Your task to perform on an android device: What's on my calendar tomorrow? Image 0: 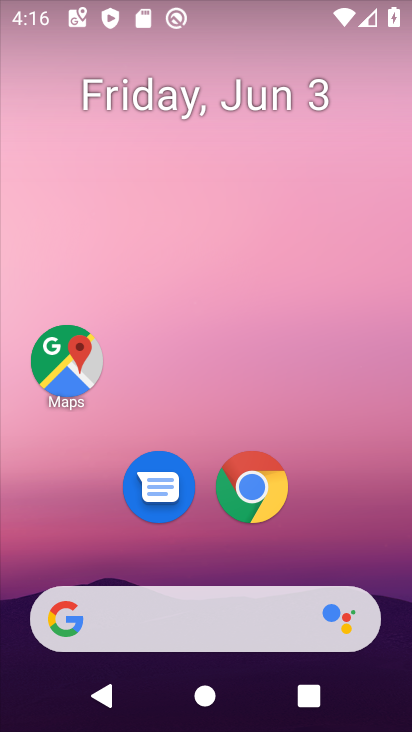
Step 0: click (266, 257)
Your task to perform on an android device: What's on my calendar tomorrow? Image 1: 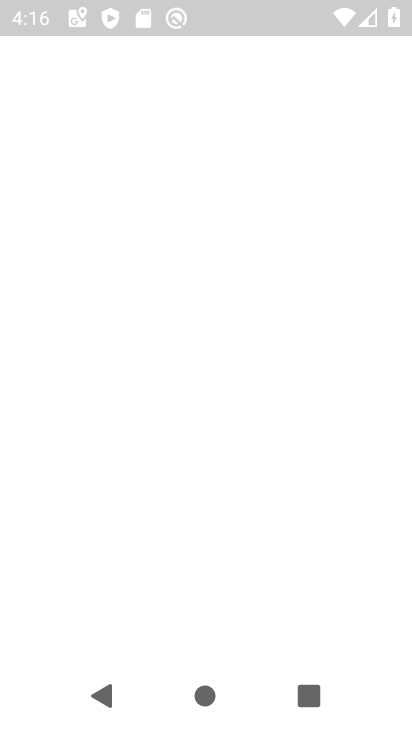
Step 1: drag from (210, 542) to (246, 394)
Your task to perform on an android device: What's on my calendar tomorrow? Image 2: 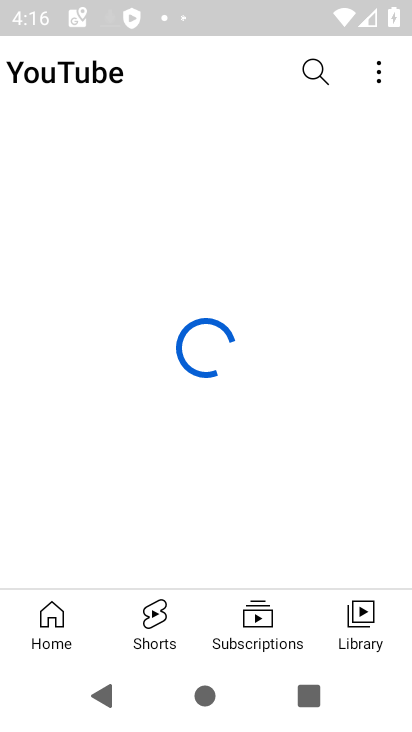
Step 2: press home button
Your task to perform on an android device: What's on my calendar tomorrow? Image 3: 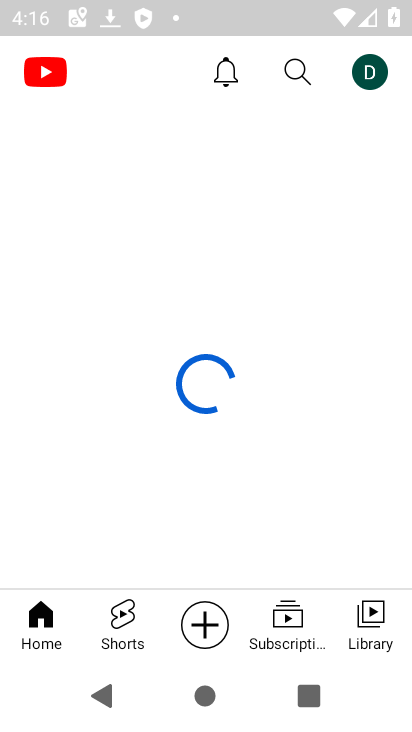
Step 3: press home button
Your task to perform on an android device: What's on my calendar tomorrow? Image 4: 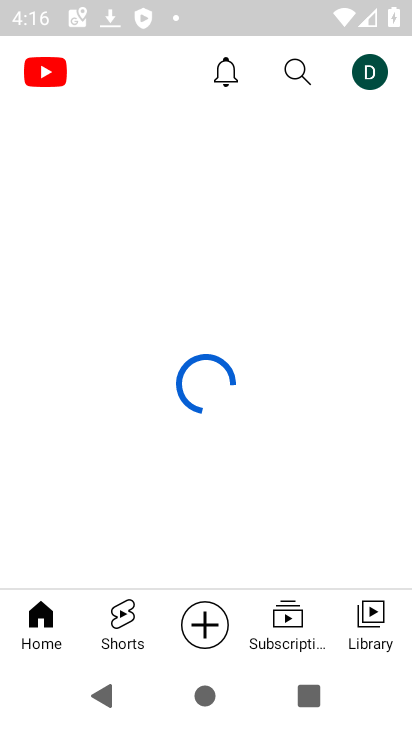
Step 4: click (222, 169)
Your task to perform on an android device: What's on my calendar tomorrow? Image 5: 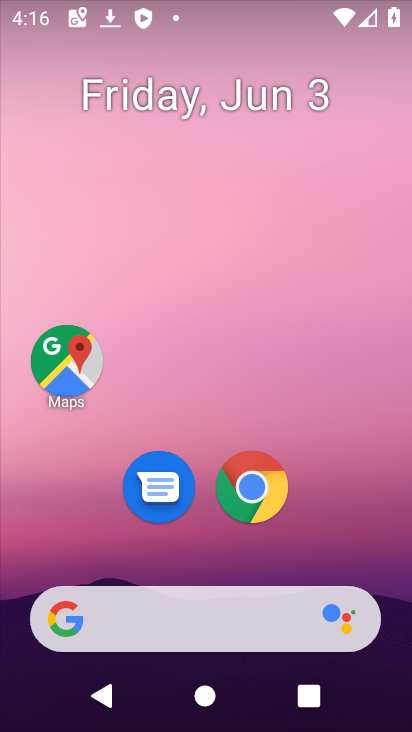
Step 5: drag from (165, 560) to (220, 43)
Your task to perform on an android device: What's on my calendar tomorrow? Image 6: 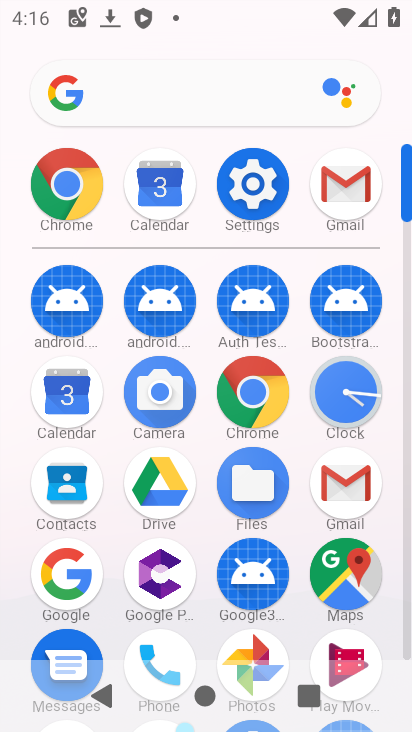
Step 6: click (71, 397)
Your task to perform on an android device: What's on my calendar tomorrow? Image 7: 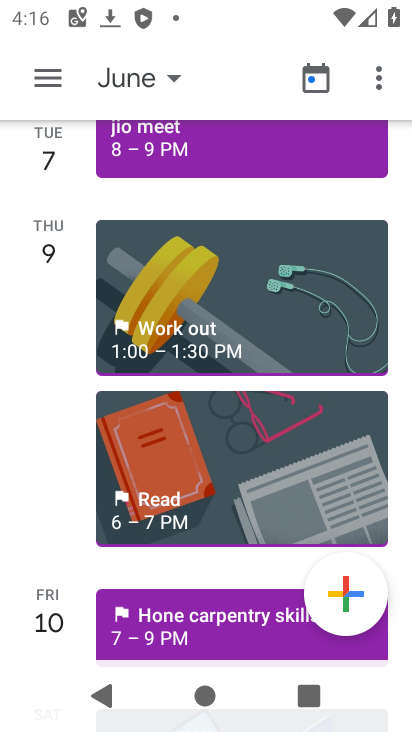
Step 7: click (145, 82)
Your task to perform on an android device: What's on my calendar tomorrow? Image 8: 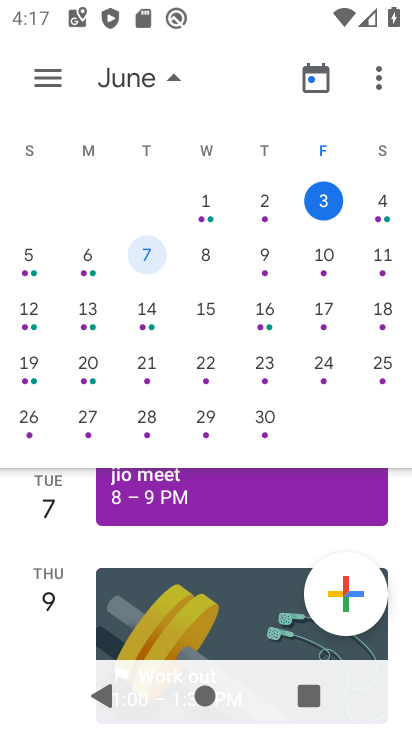
Step 8: click (378, 206)
Your task to perform on an android device: What's on my calendar tomorrow? Image 9: 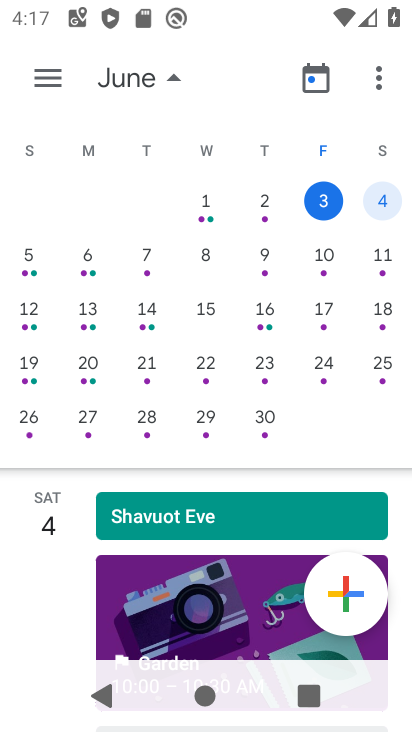
Step 9: task complete